Your task to perform on an android device: refresh tabs in the chrome app Image 0: 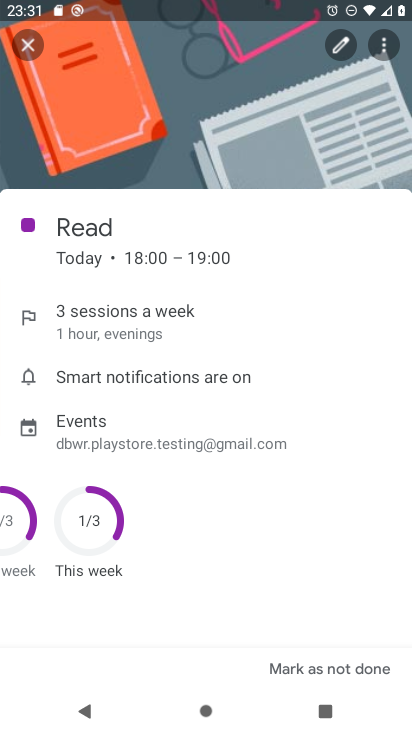
Step 0: press home button
Your task to perform on an android device: refresh tabs in the chrome app Image 1: 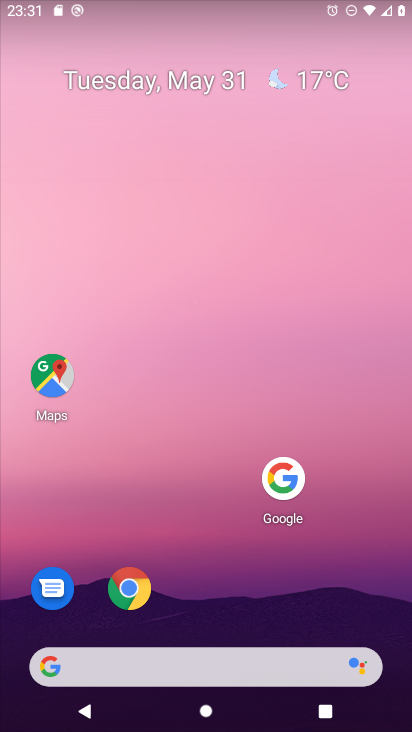
Step 1: click (143, 585)
Your task to perform on an android device: refresh tabs in the chrome app Image 2: 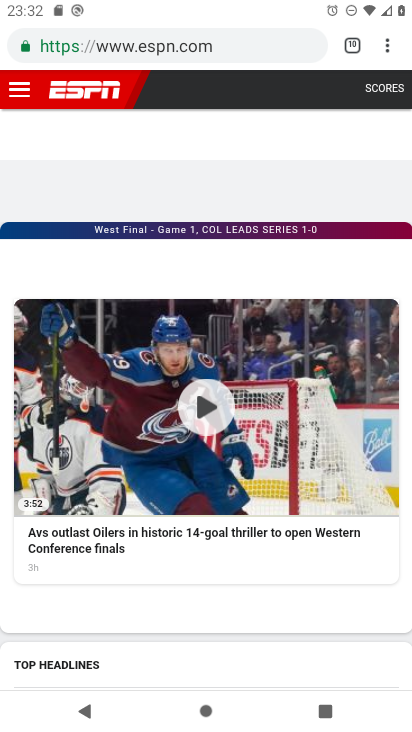
Step 2: click (387, 56)
Your task to perform on an android device: refresh tabs in the chrome app Image 3: 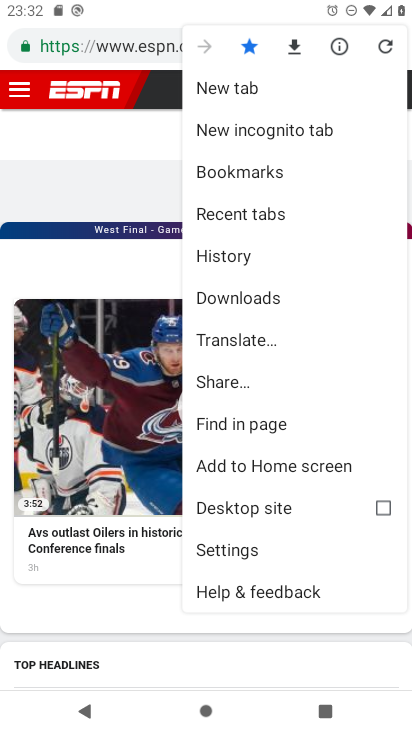
Step 3: click (379, 40)
Your task to perform on an android device: refresh tabs in the chrome app Image 4: 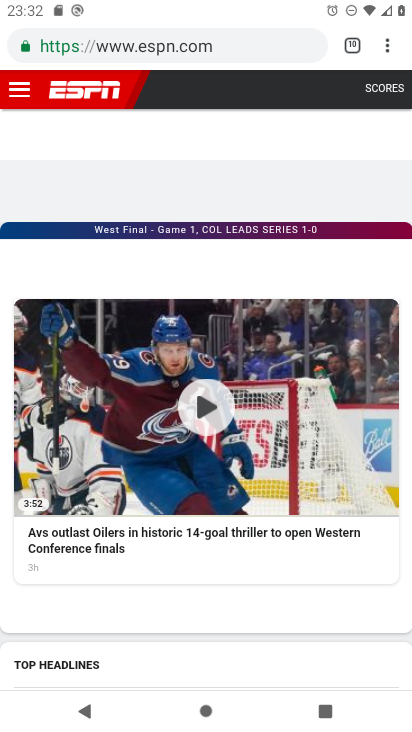
Step 4: task complete